Your task to perform on an android device: Open the calendar app, open the side menu, and click the "Day" option Image 0: 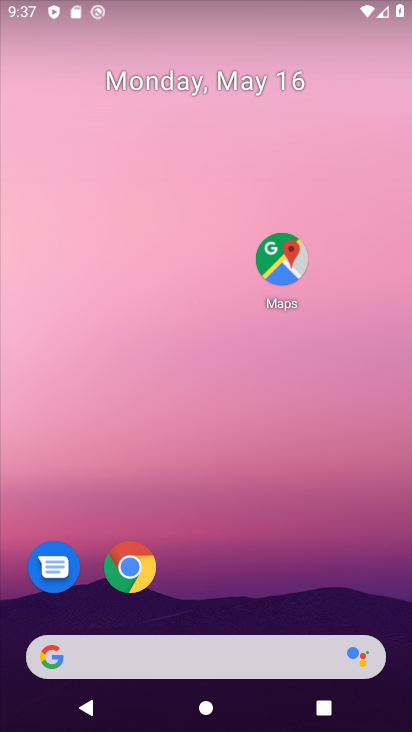
Step 0: drag from (236, 601) to (230, 147)
Your task to perform on an android device: Open the calendar app, open the side menu, and click the "Day" option Image 1: 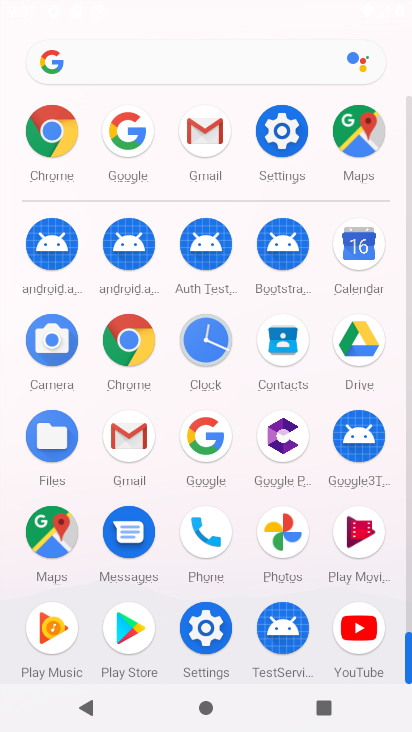
Step 1: click (361, 253)
Your task to perform on an android device: Open the calendar app, open the side menu, and click the "Day" option Image 2: 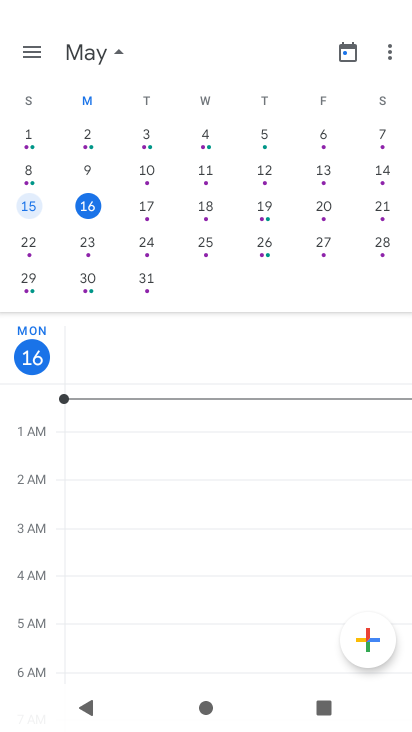
Step 2: click (93, 208)
Your task to perform on an android device: Open the calendar app, open the side menu, and click the "Day" option Image 3: 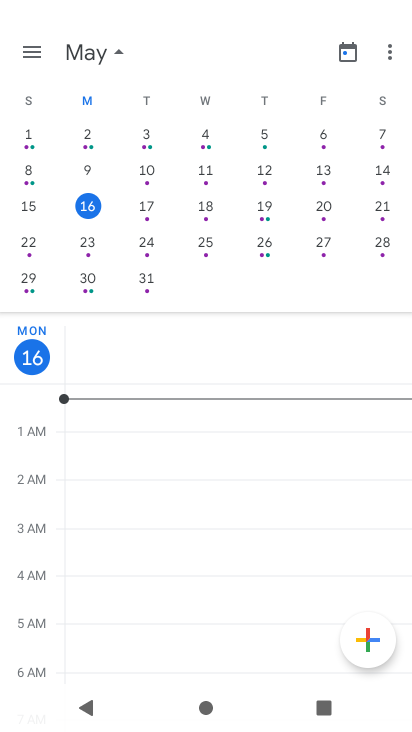
Step 3: click (25, 59)
Your task to perform on an android device: Open the calendar app, open the side menu, and click the "Day" option Image 4: 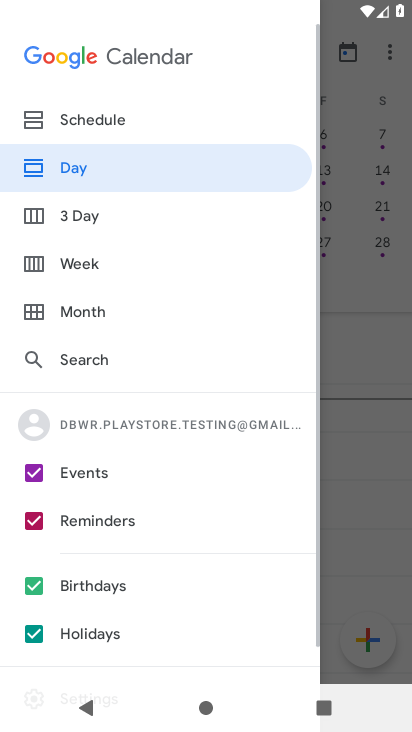
Step 4: click (93, 170)
Your task to perform on an android device: Open the calendar app, open the side menu, and click the "Day" option Image 5: 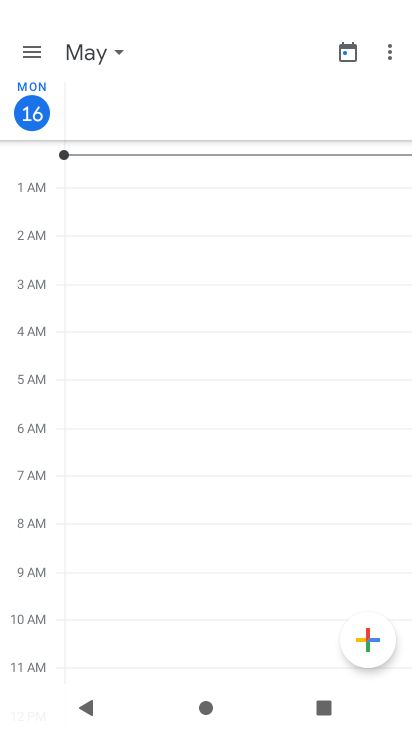
Step 5: task complete